Your task to perform on an android device: toggle notifications settings in the gmail app Image 0: 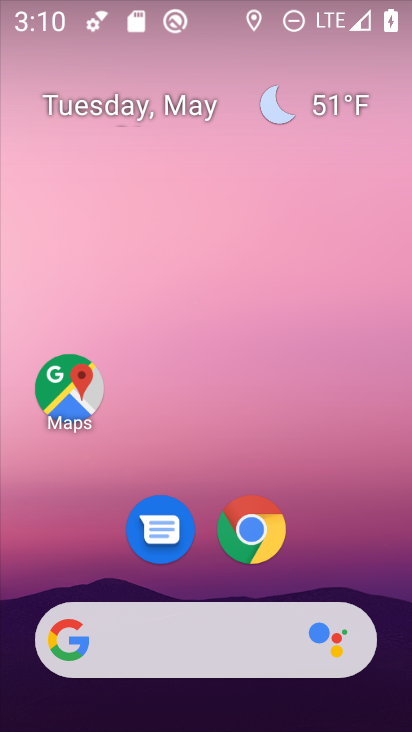
Step 0: drag from (223, 567) to (232, 126)
Your task to perform on an android device: toggle notifications settings in the gmail app Image 1: 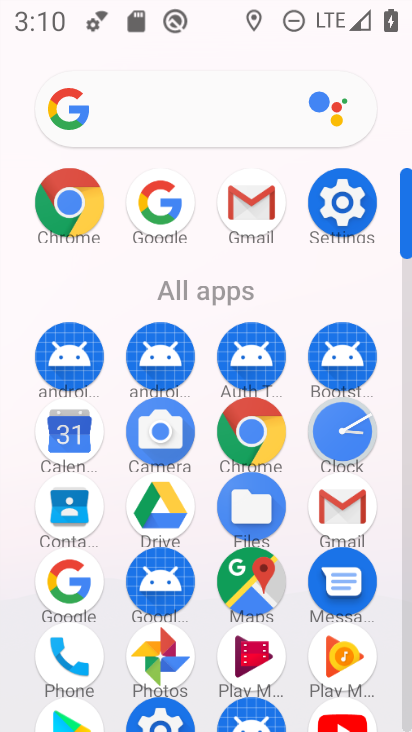
Step 1: click (247, 203)
Your task to perform on an android device: toggle notifications settings in the gmail app Image 2: 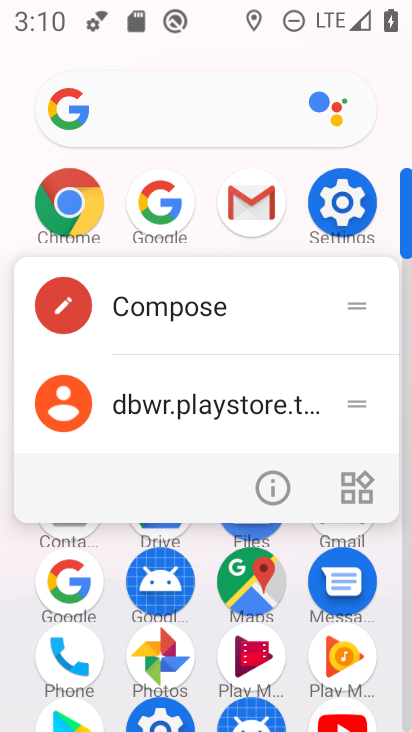
Step 2: click (268, 483)
Your task to perform on an android device: toggle notifications settings in the gmail app Image 3: 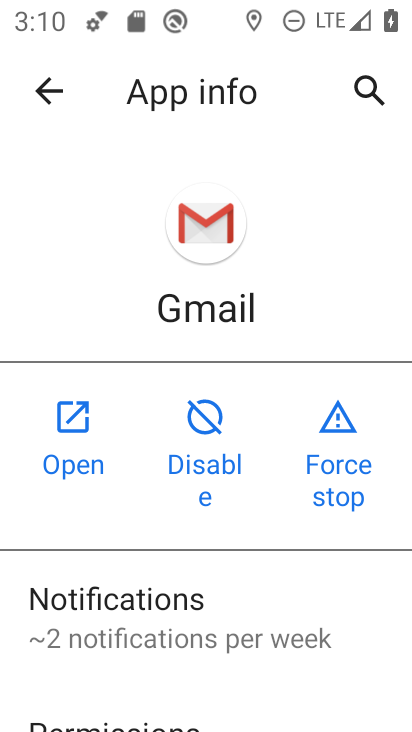
Step 3: click (175, 606)
Your task to perform on an android device: toggle notifications settings in the gmail app Image 4: 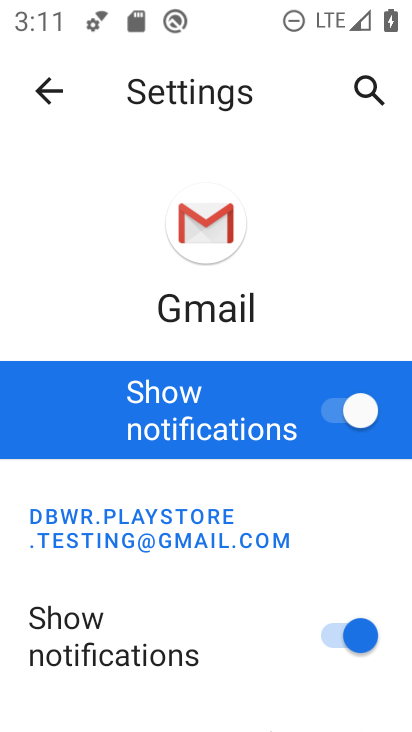
Step 4: click (353, 408)
Your task to perform on an android device: toggle notifications settings in the gmail app Image 5: 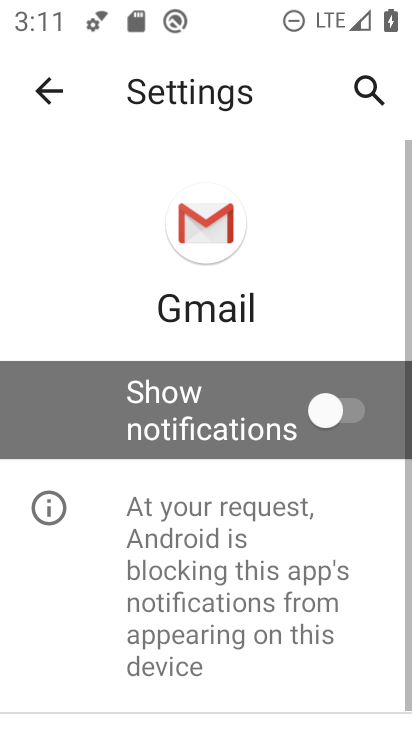
Step 5: task complete